Your task to perform on an android device: Open Google Maps Image 0: 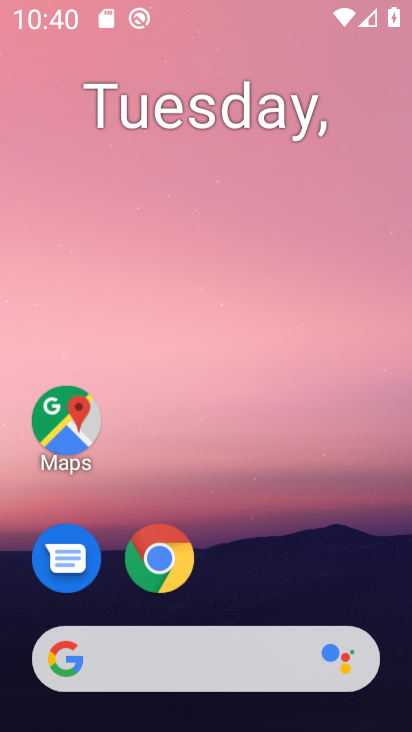
Step 0: press home button
Your task to perform on an android device: Open Google Maps Image 1: 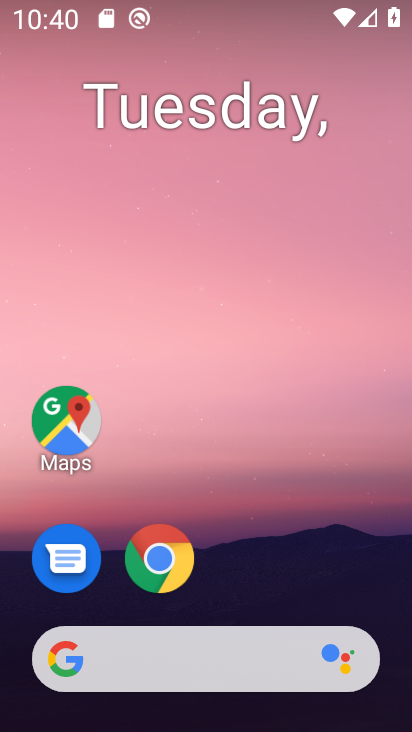
Step 1: drag from (367, 572) to (391, 91)
Your task to perform on an android device: Open Google Maps Image 2: 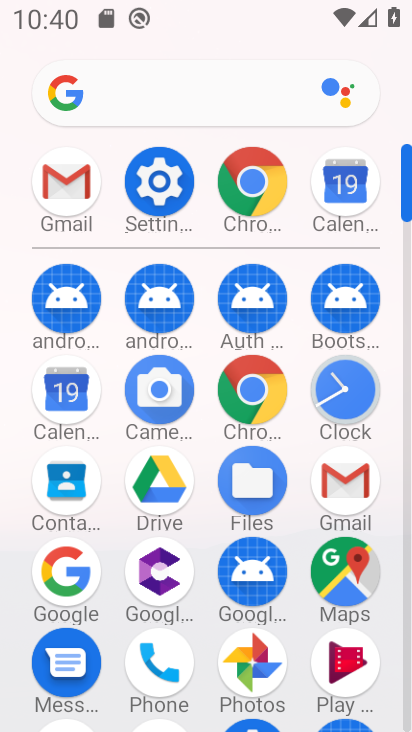
Step 2: click (339, 573)
Your task to perform on an android device: Open Google Maps Image 3: 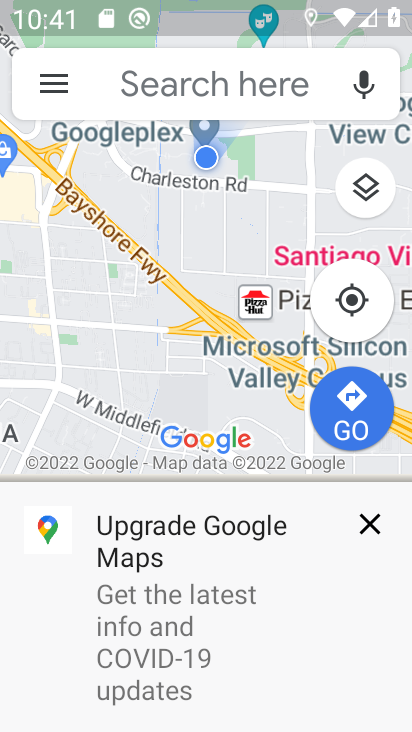
Step 3: task complete